Your task to perform on an android device: Open display settings Image 0: 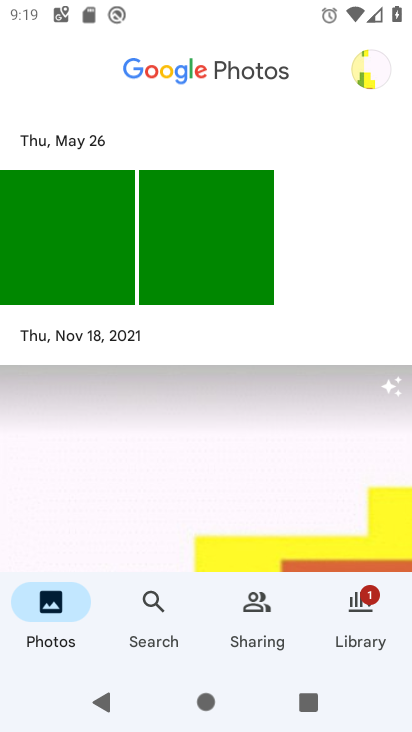
Step 0: press home button
Your task to perform on an android device: Open display settings Image 1: 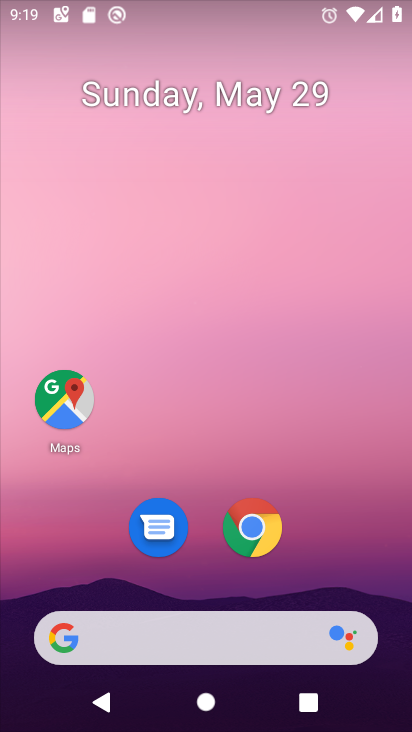
Step 1: drag from (207, 584) to (195, 45)
Your task to perform on an android device: Open display settings Image 2: 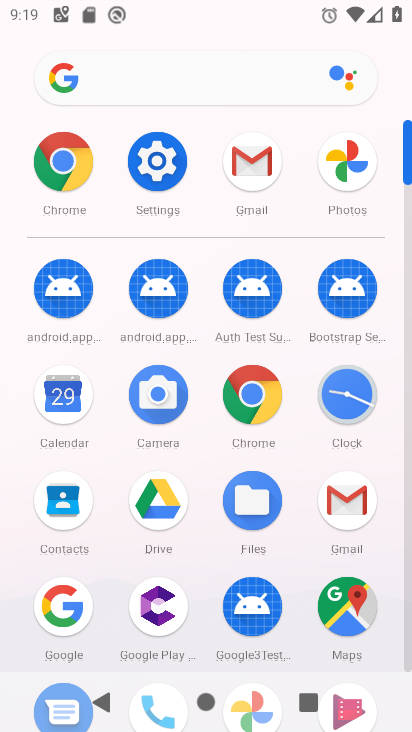
Step 2: click (151, 152)
Your task to perform on an android device: Open display settings Image 3: 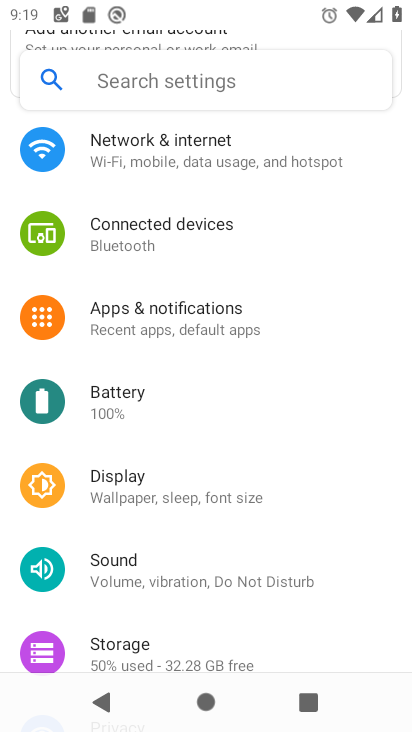
Step 3: click (157, 477)
Your task to perform on an android device: Open display settings Image 4: 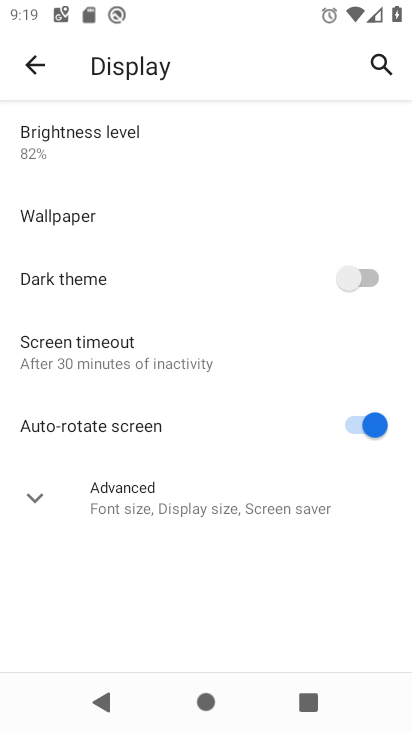
Step 4: click (34, 490)
Your task to perform on an android device: Open display settings Image 5: 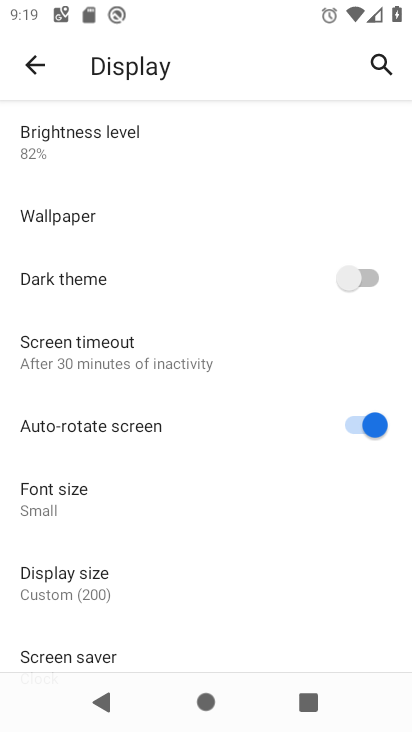
Step 5: task complete